Your task to perform on an android device: Open Yahoo.com Image 0: 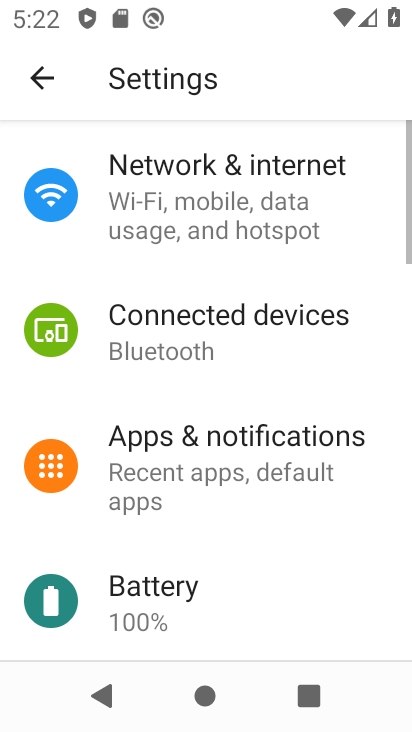
Step 0: press home button
Your task to perform on an android device: Open Yahoo.com Image 1: 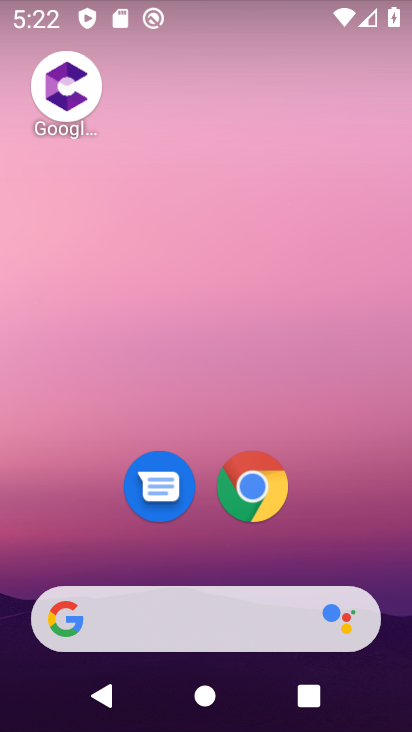
Step 1: click (275, 481)
Your task to perform on an android device: Open Yahoo.com Image 2: 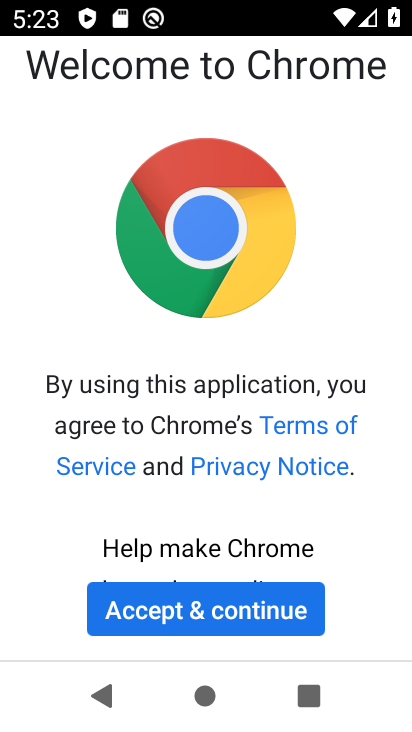
Step 2: click (254, 617)
Your task to perform on an android device: Open Yahoo.com Image 3: 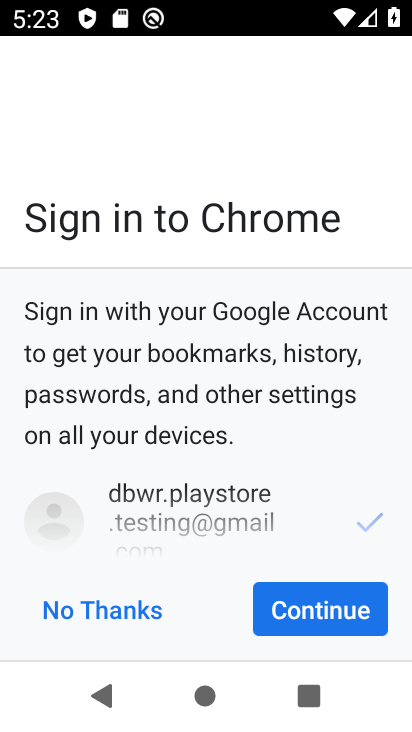
Step 3: click (350, 607)
Your task to perform on an android device: Open Yahoo.com Image 4: 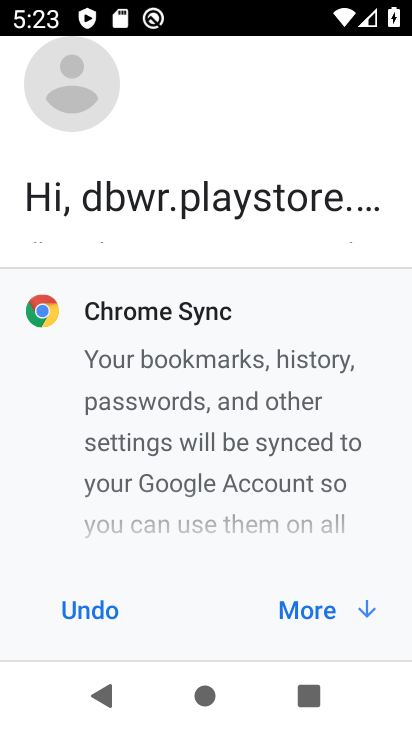
Step 4: click (299, 609)
Your task to perform on an android device: Open Yahoo.com Image 5: 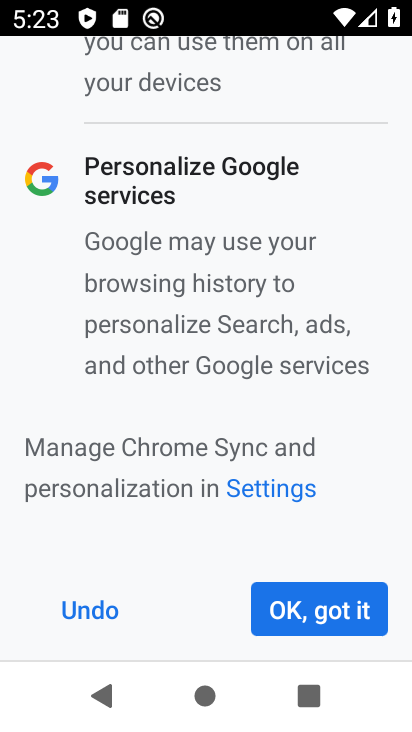
Step 5: click (300, 626)
Your task to perform on an android device: Open Yahoo.com Image 6: 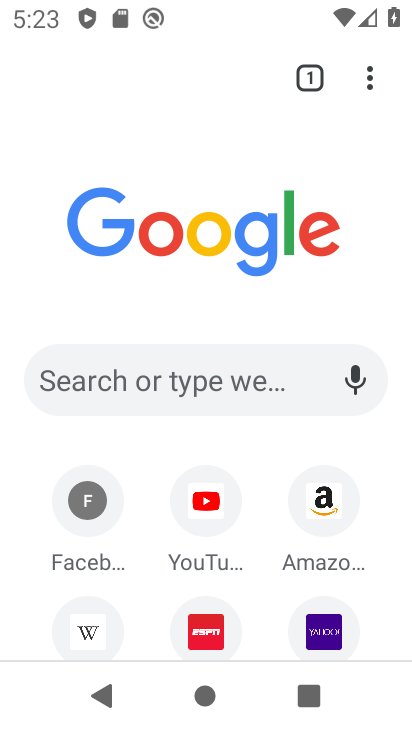
Step 6: drag from (128, 585) to (166, 364)
Your task to perform on an android device: Open Yahoo.com Image 7: 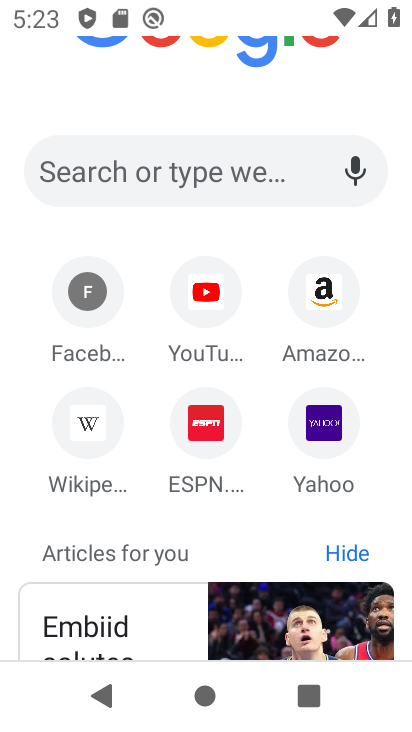
Step 7: click (323, 450)
Your task to perform on an android device: Open Yahoo.com Image 8: 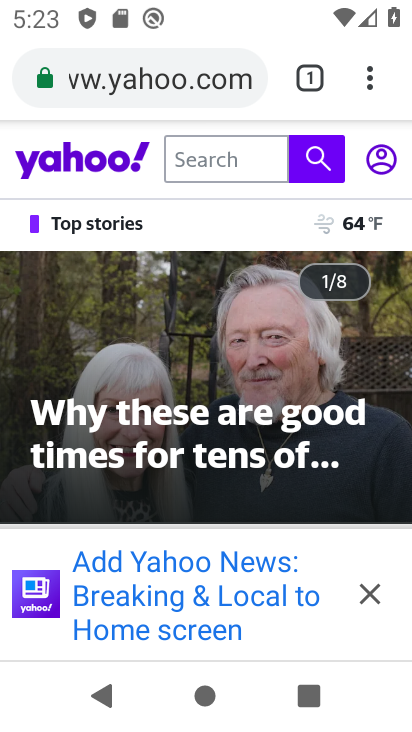
Step 8: task complete